Your task to perform on an android device: Go to battery settings Image 0: 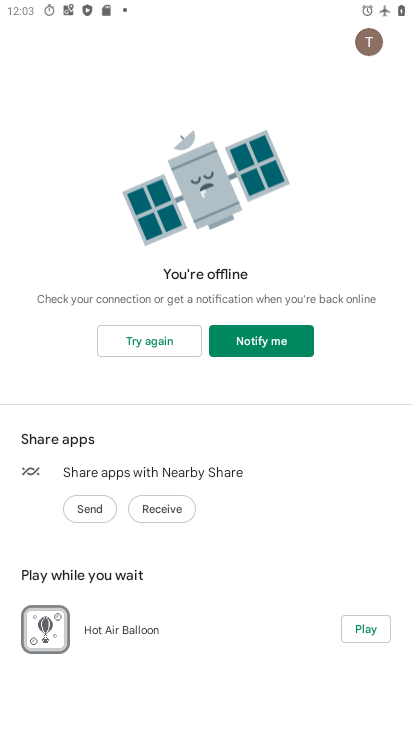
Step 0: press home button
Your task to perform on an android device: Go to battery settings Image 1: 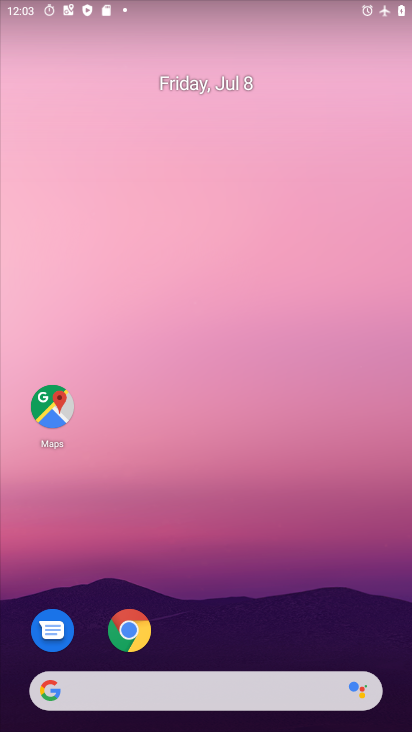
Step 1: drag from (205, 610) to (192, 171)
Your task to perform on an android device: Go to battery settings Image 2: 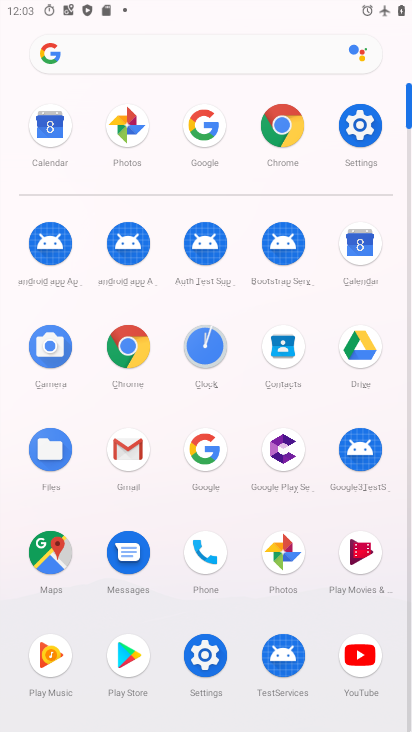
Step 2: click (354, 139)
Your task to perform on an android device: Go to battery settings Image 3: 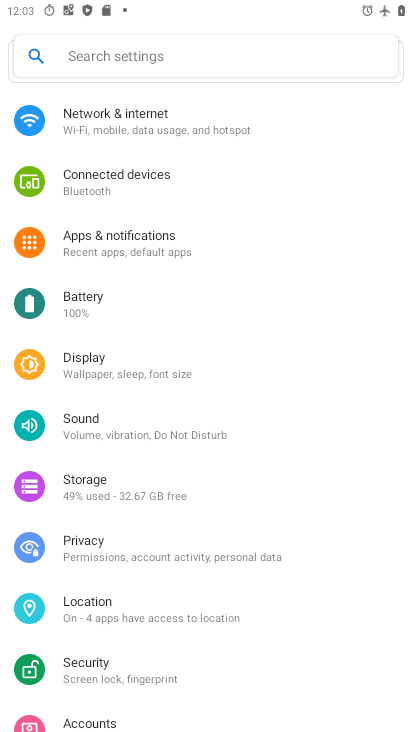
Step 3: click (103, 307)
Your task to perform on an android device: Go to battery settings Image 4: 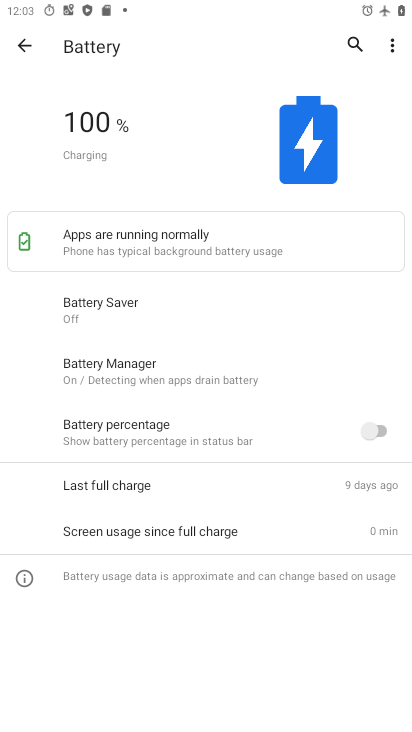
Step 4: task complete